Your task to perform on an android device: Open location settings Image 0: 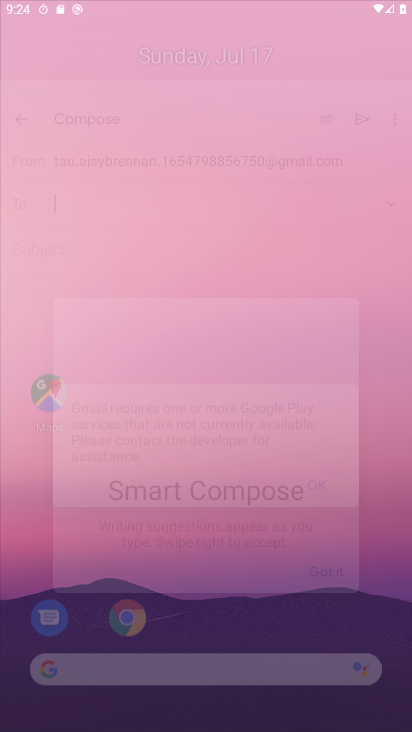
Step 0: click (212, 358)
Your task to perform on an android device: Open location settings Image 1: 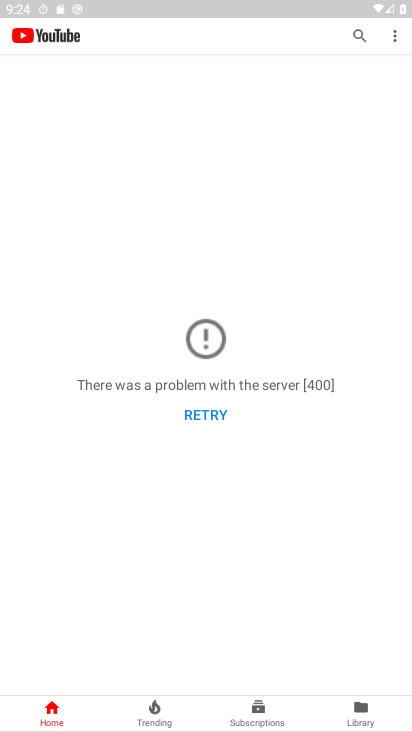
Step 1: press home button
Your task to perform on an android device: Open location settings Image 2: 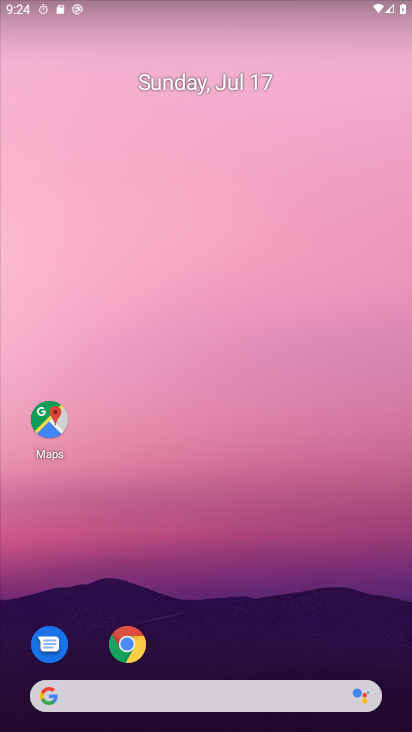
Step 2: drag from (162, 680) to (194, 410)
Your task to perform on an android device: Open location settings Image 3: 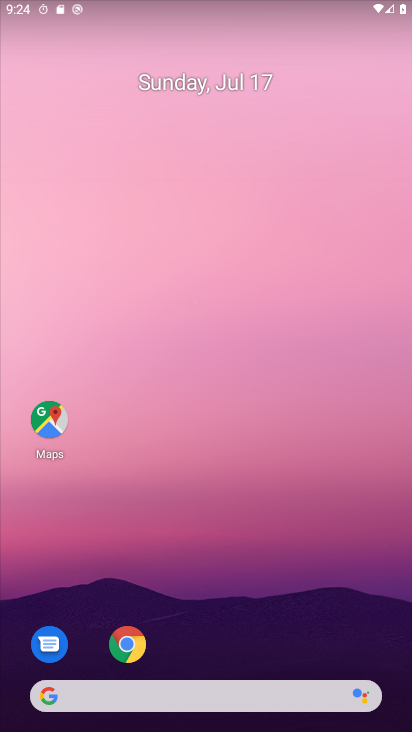
Step 3: drag from (220, 678) to (274, 181)
Your task to perform on an android device: Open location settings Image 4: 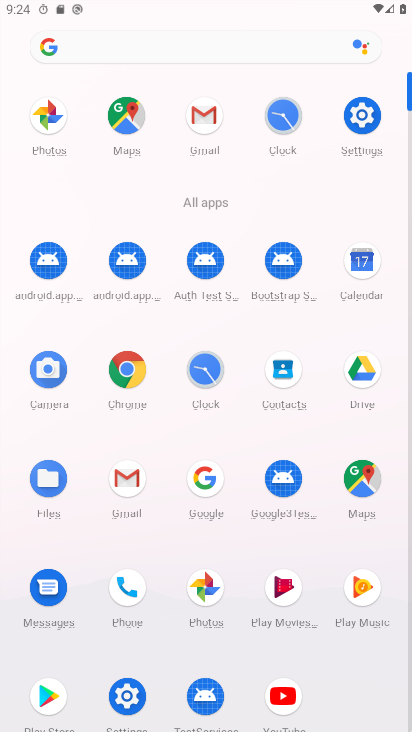
Step 4: click (137, 692)
Your task to perform on an android device: Open location settings Image 5: 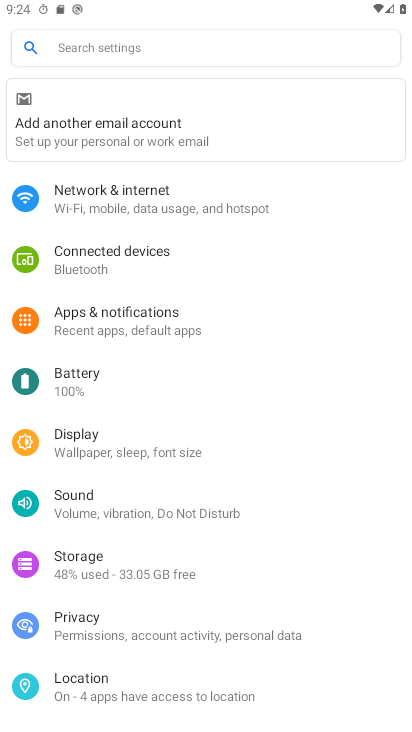
Step 5: drag from (135, 654) to (166, 459)
Your task to perform on an android device: Open location settings Image 6: 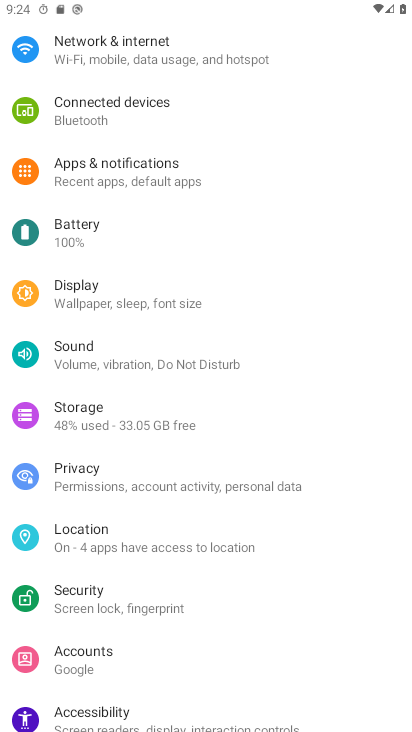
Step 6: click (109, 547)
Your task to perform on an android device: Open location settings Image 7: 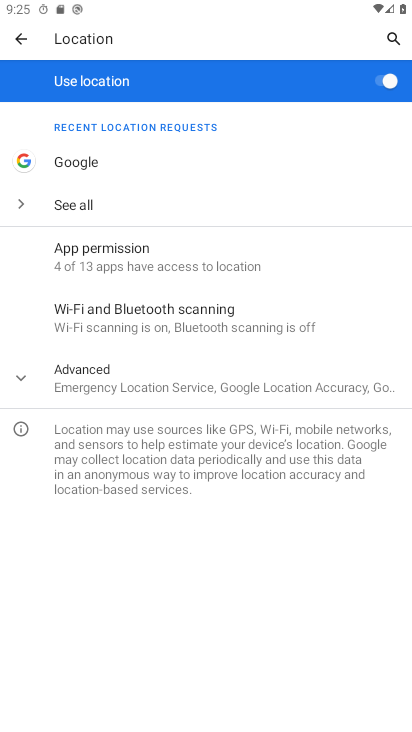
Step 7: task complete